Your task to perform on an android device: Open notification settings Image 0: 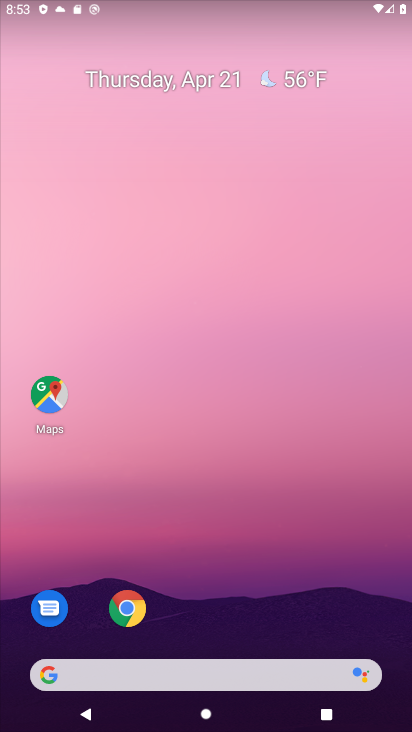
Step 0: drag from (307, 550) to (340, 128)
Your task to perform on an android device: Open notification settings Image 1: 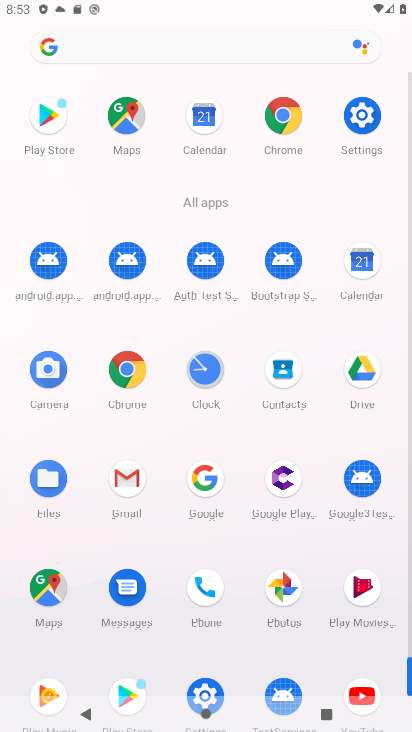
Step 1: click (367, 113)
Your task to perform on an android device: Open notification settings Image 2: 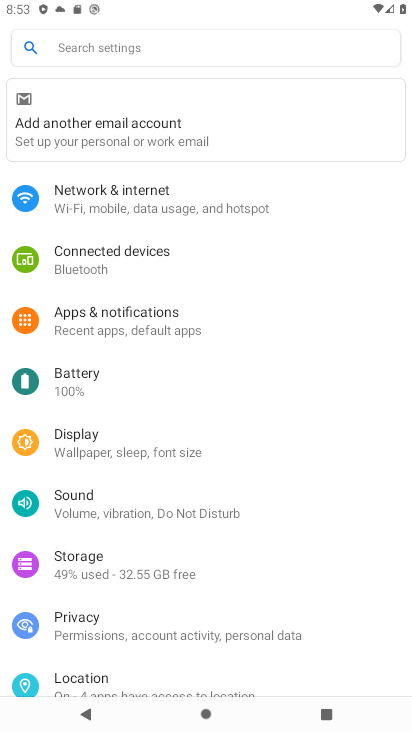
Step 2: click (202, 315)
Your task to perform on an android device: Open notification settings Image 3: 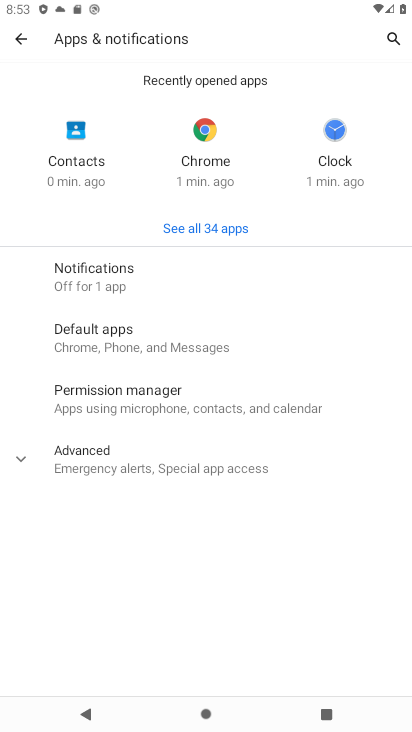
Step 3: task complete